Your task to perform on an android device: change the clock display to digital Image 0: 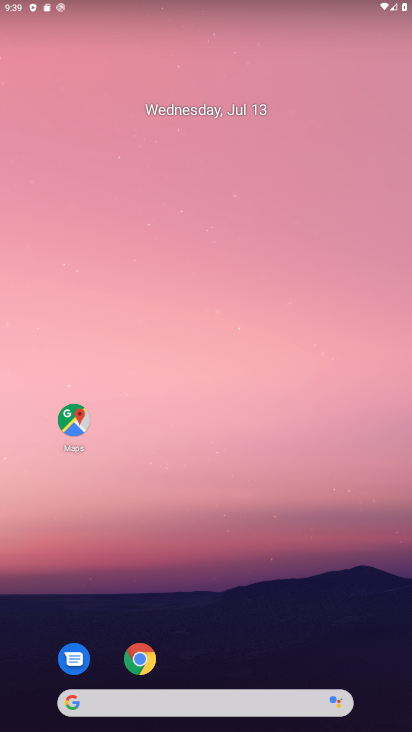
Step 0: drag from (327, 479) to (349, 77)
Your task to perform on an android device: change the clock display to digital Image 1: 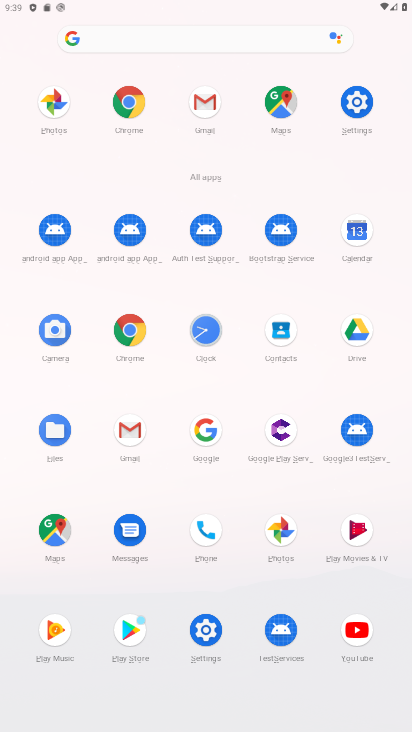
Step 1: click (207, 324)
Your task to perform on an android device: change the clock display to digital Image 2: 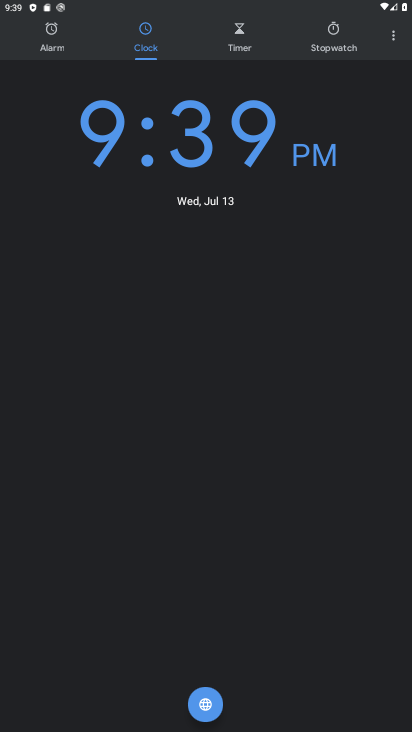
Step 2: click (391, 34)
Your task to perform on an android device: change the clock display to digital Image 3: 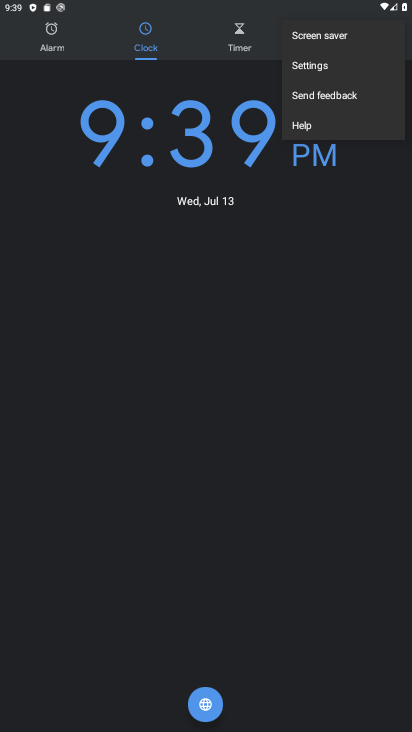
Step 3: click (326, 67)
Your task to perform on an android device: change the clock display to digital Image 4: 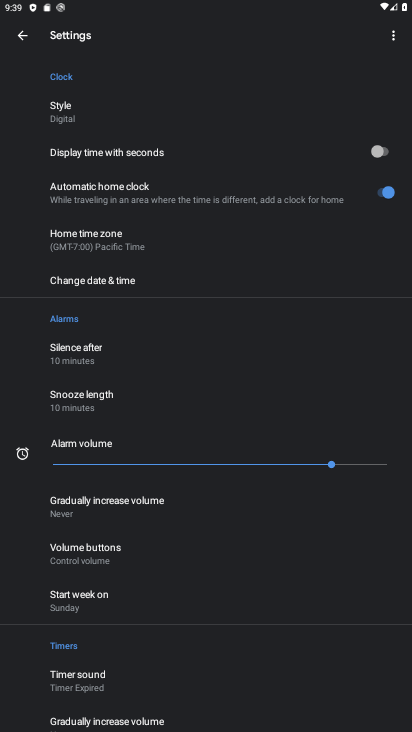
Step 4: task complete